Your task to perform on an android device: manage bookmarks in the chrome app Image 0: 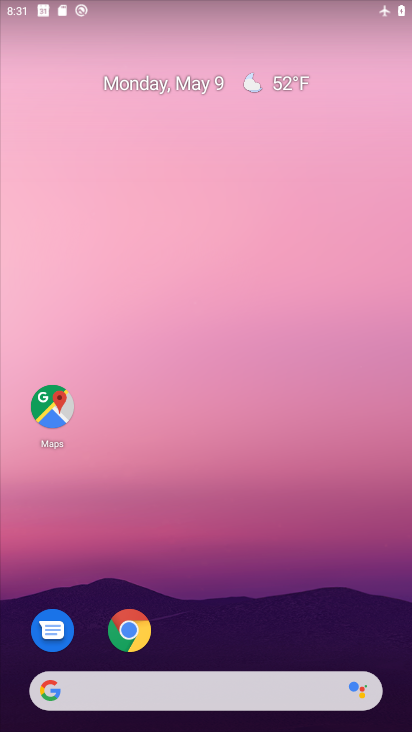
Step 0: click (137, 629)
Your task to perform on an android device: manage bookmarks in the chrome app Image 1: 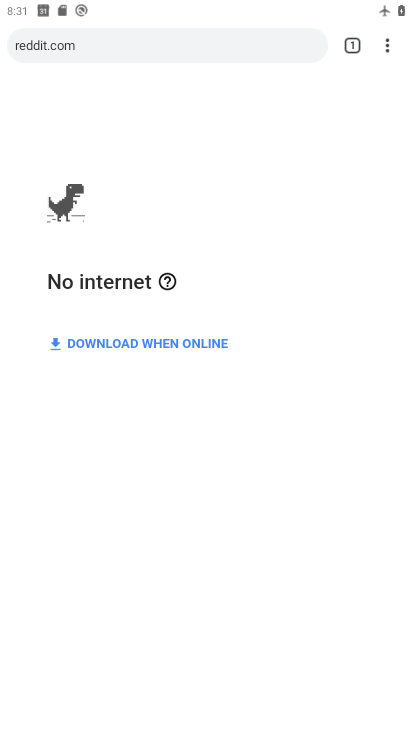
Step 1: click (389, 49)
Your task to perform on an android device: manage bookmarks in the chrome app Image 2: 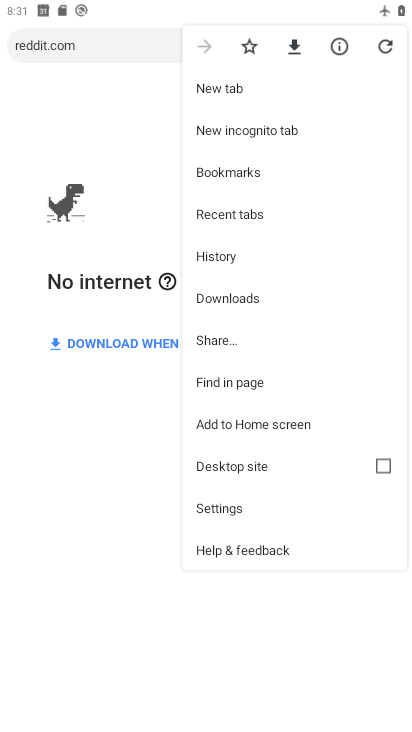
Step 2: click (257, 182)
Your task to perform on an android device: manage bookmarks in the chrome app Image 3: 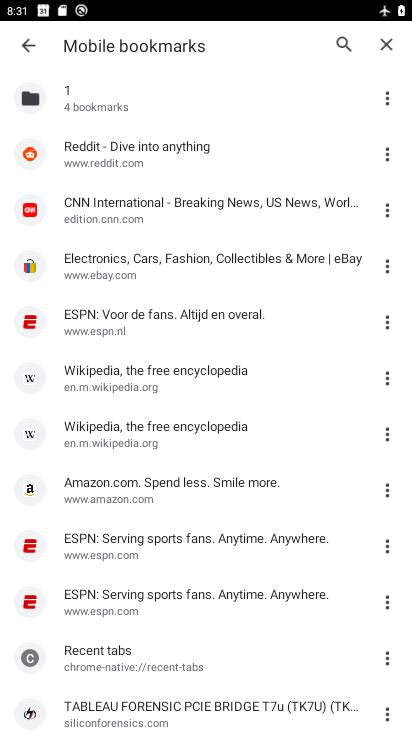
Step 3: click (384, 154)
Your task to perform on an android device: manage bookmarks in the chrome app Image 4: 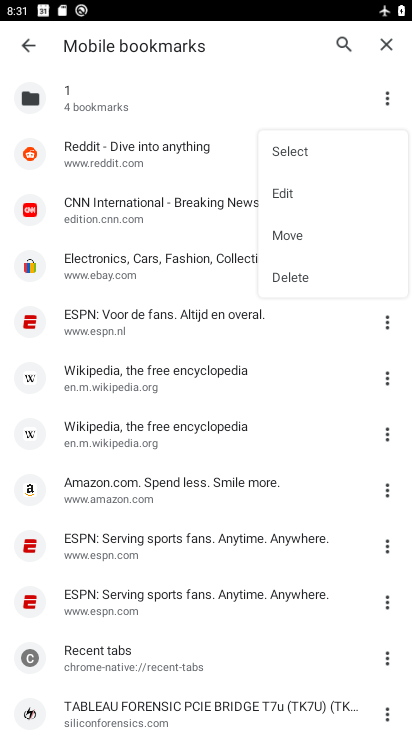
Step 4: click (291, 157)
Your task to perform on an android device: manage bookmarks in the chrome app Image 5: 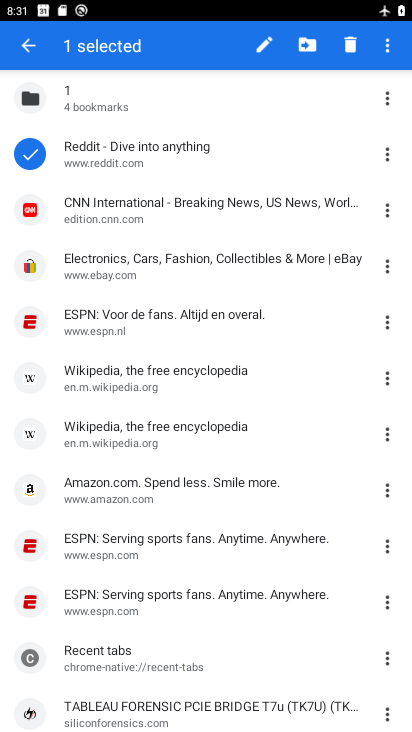
Step 5: click (91, 209)
Your task to perform on an android device: manage bookmarks in the chrome app Image 6: 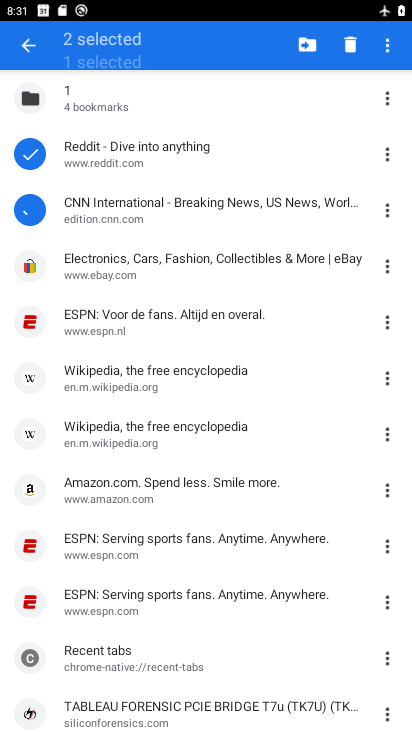
Step 6: click (92, 262)
Your task to perform on an android device: manage bookmarks in the chrome app Image 7: 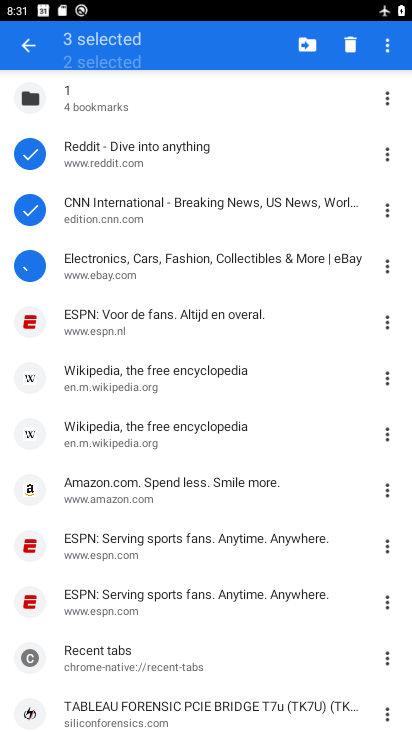
Step 7: click (97, 340)
Your task to perform on an android device: manage bookmarks in the chrome app Image 8: 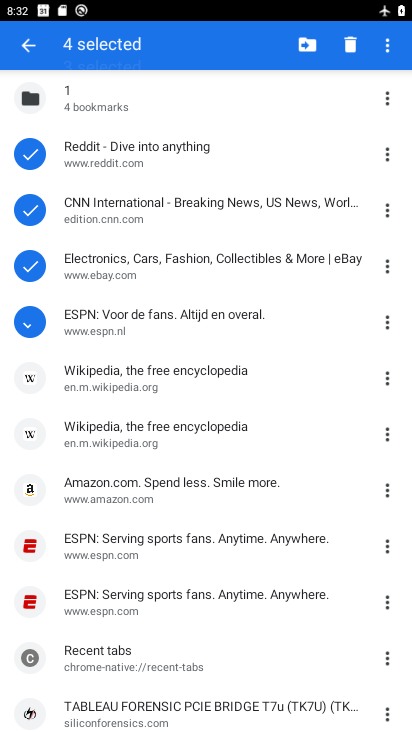
Step 8: click (108, 420)
Your task to perform on an android device: manage bookmarks in the chrome app Image 9: 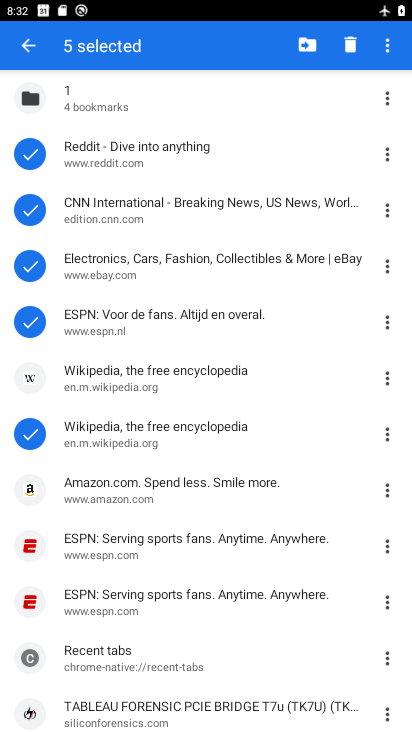
Step 9: click (94, 483)
Your task to perform on an android device: manage bookmarks in the chrome app Image 10: 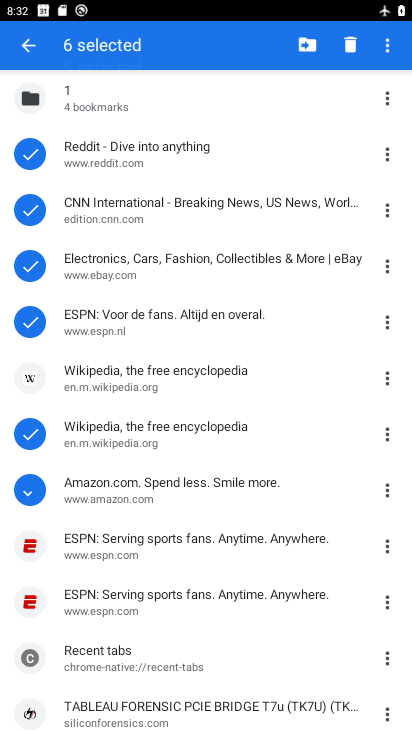
Step 10: click (97, 442)
Your task to perform on an android device: manage bookmarks in the chrome app Image 11: 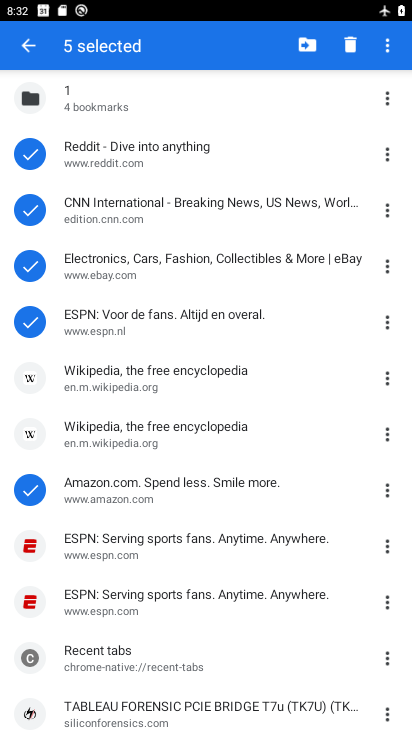
Step 11: click (88, 379)
Your task to perform on an android device: manage bookmarks in the chrome app Image 12: 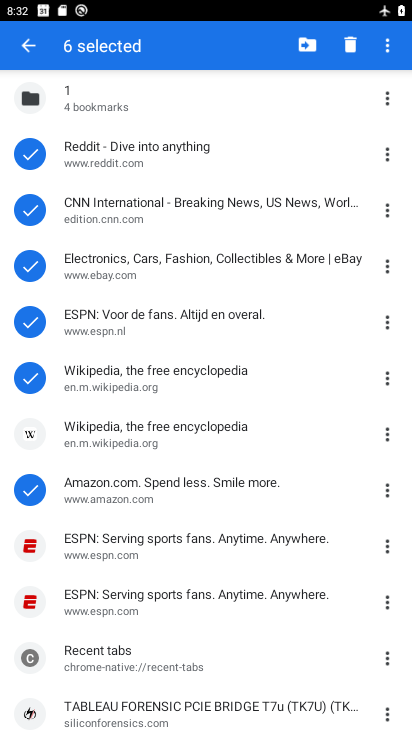
Step 12: click (104, 428)
Your task to perform on an android device: manage bookmarks in the chrome app Image 13: 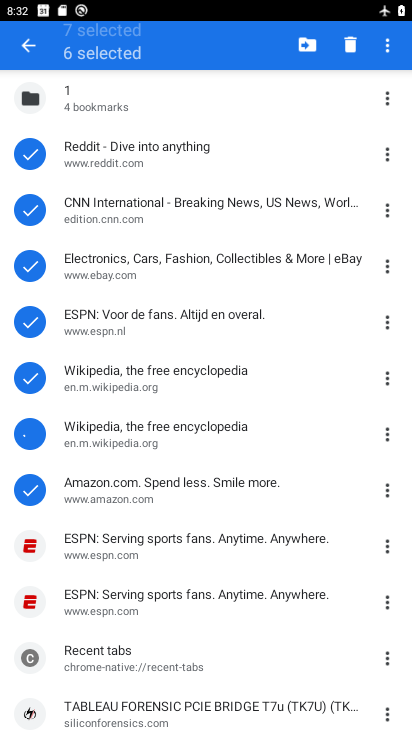
Step 13: click (112, 517)
Your task to perform on an android device: manage bookmarks in the chrome app Image 14: 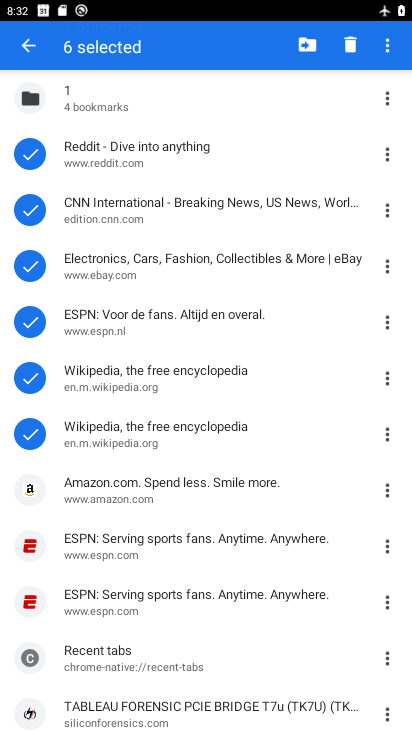
Step 14: click (99, 589)
Your task to perform on an android device: manage bookmarks in the chrome app Image 15: 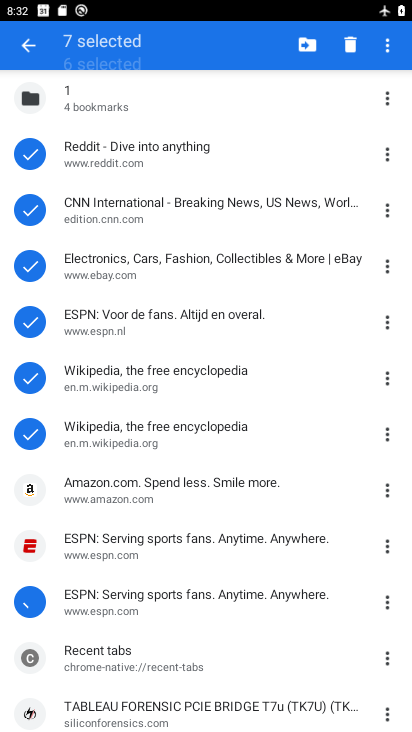
Step 15: click (87, 658)
Your task to perform on an android device: manage bookmarks in the chrome app Image 16: 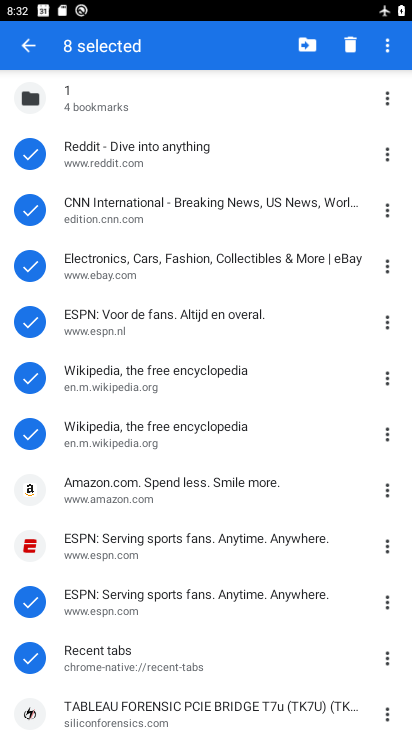
Step 16: click (94, 700)
Your task to perform on an android device: manage bookmarks in the chrome app Image 17: 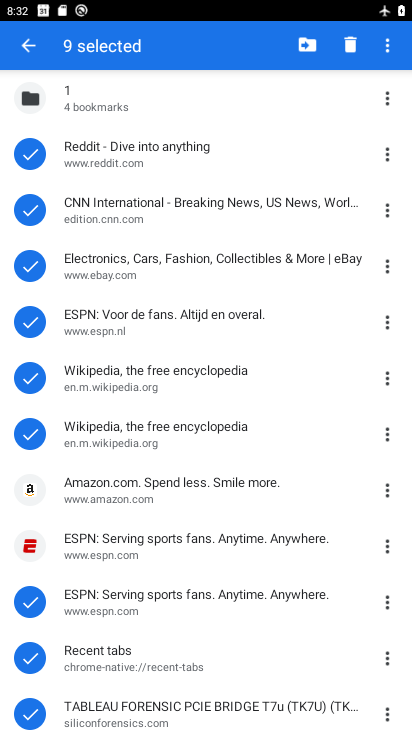
Step 17: click (303, 44)
Your task to perform on an android device: manage bookmarks in the chrome app Image 18: 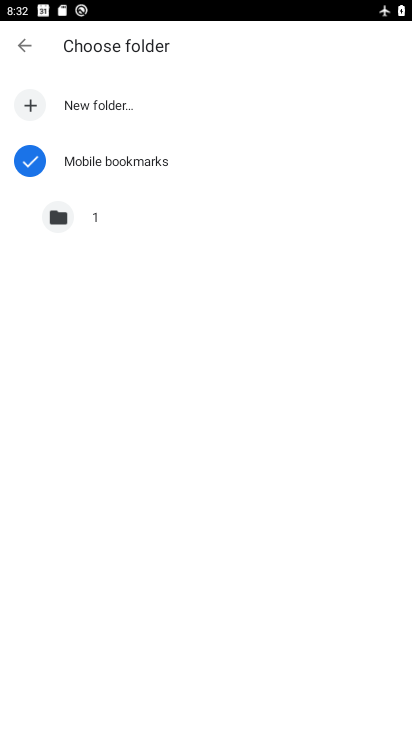
Step 18: click (80, 206)
Your task to perform on an android device: manage bookmarks in the chrome app Image 19: 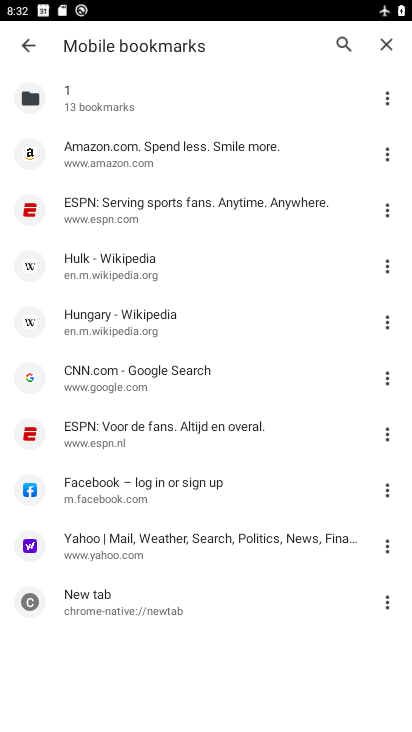
Step 19: task complete